Your task to perform on an android device: turn off priority inbox in the gmail app Image 0: 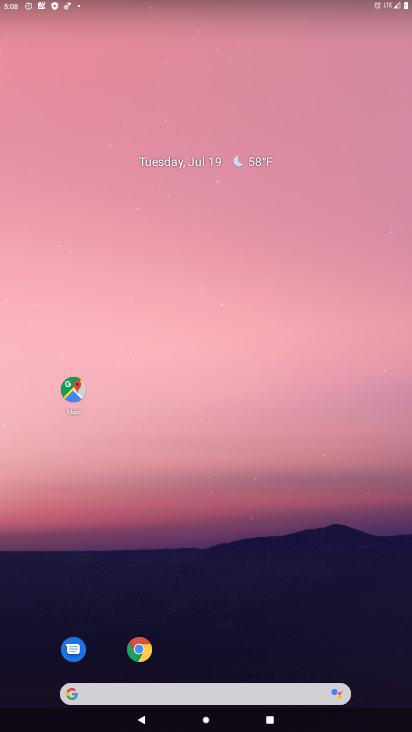
Step 0: drag from (203, 597) to (184, 45)
Your task to perform on an android device: turn off priority inbox in the gmail app Image 1: 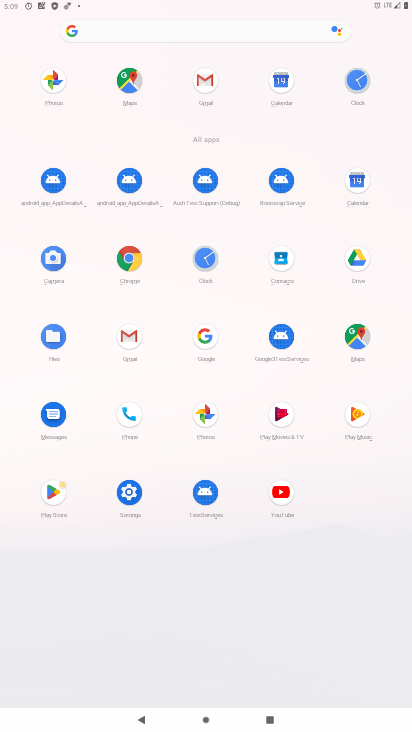
Step 1: click (120, 354)
Your task to perform on an android device: turn off priority inbox in the gmail app Image 2: 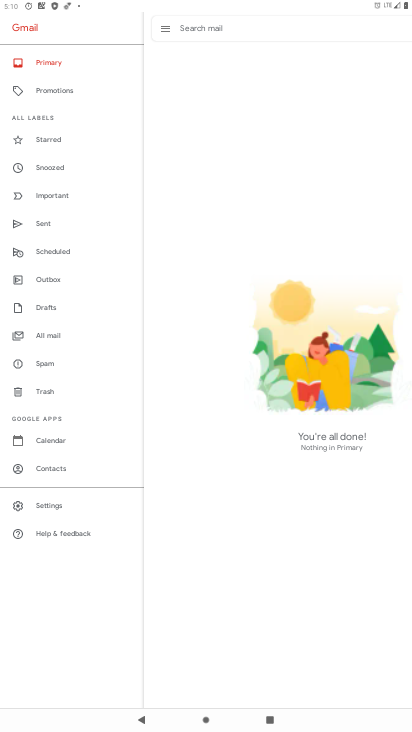
Step 2: click (38, 505)
Your task to perform on an android device: turn off priority inbox in the gmail app Image 3: 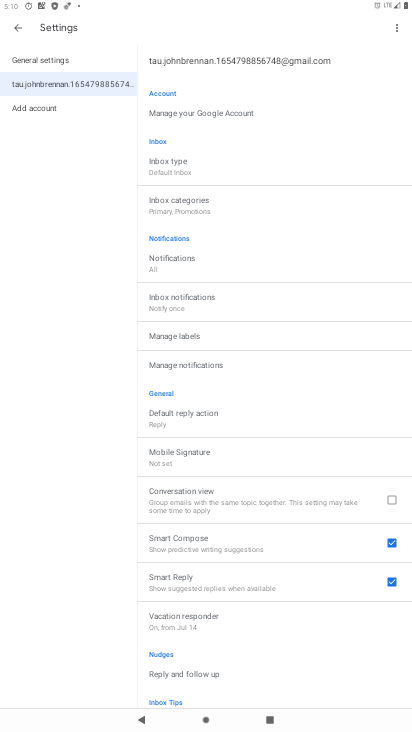
Step 3: click (164, 157)
Your task to perform on an android device: turn off priority inbox in the gmail app Image 4: 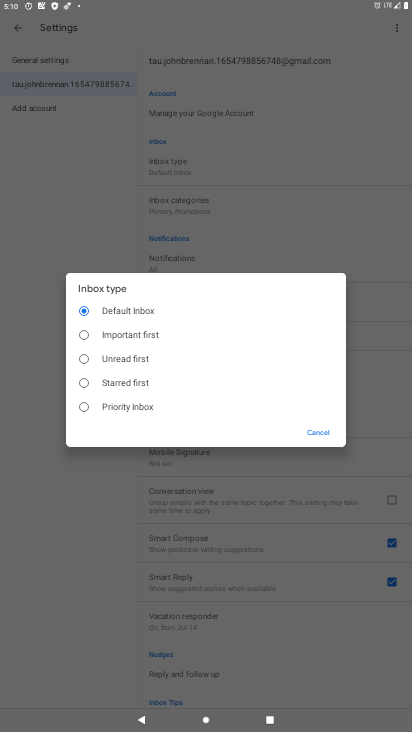
Step 4: task complete